Your task to perform on an android device: Go to calendar. Show me events next week Image 0: 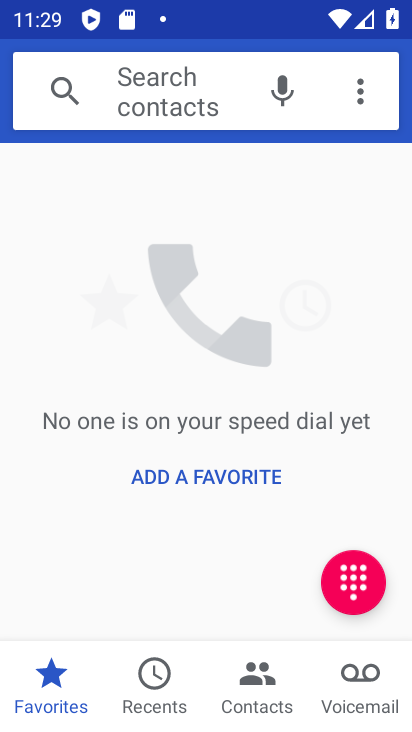
Step 0: press home button
Your task to perform on an android device: Go to calendar. Show me events next week Image 1: 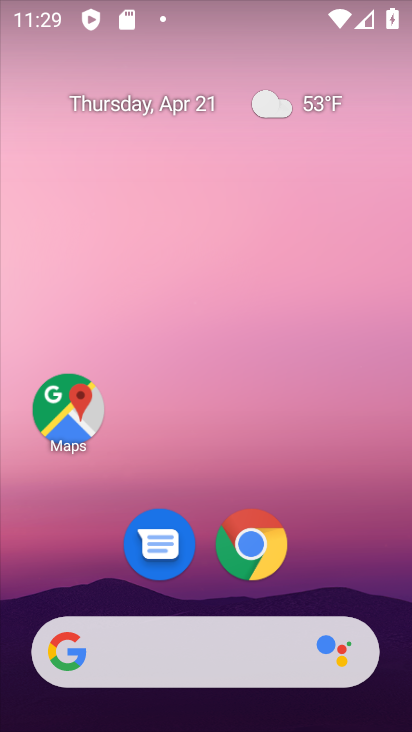
Step 1: drag from (311, 579) to (311, 132)
Your task to perform on an android device: Go to calendar. Show me events next week Image 2: 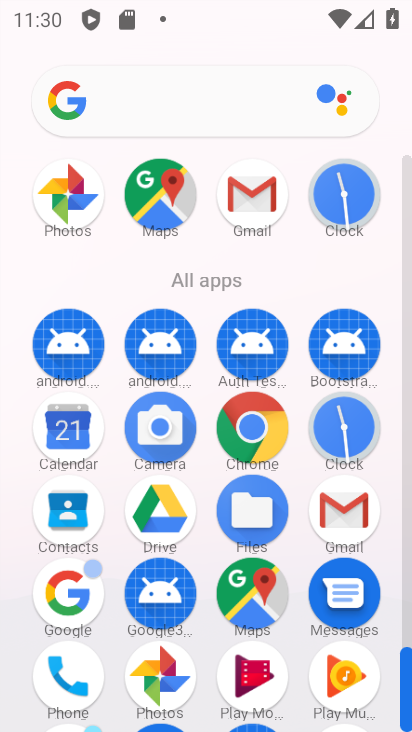
Step 2: click (79, 435)
Your task to perform on an android device: Go to calendar. Show me events next week Image 3: 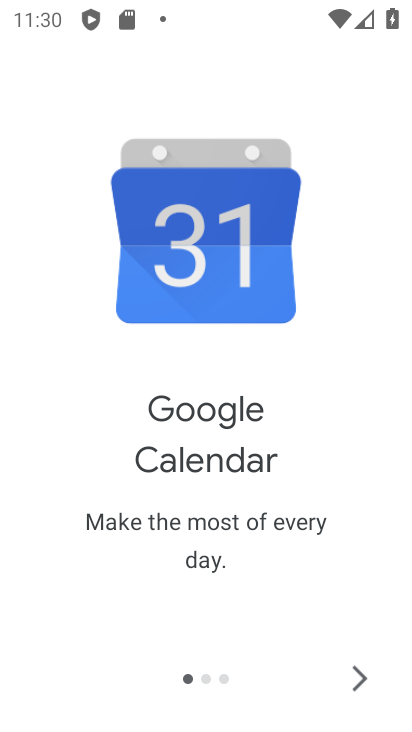
Step 3: click (361, 677)
Your task to perform on an android device: Go to calendar. Show me events next week Image 4: 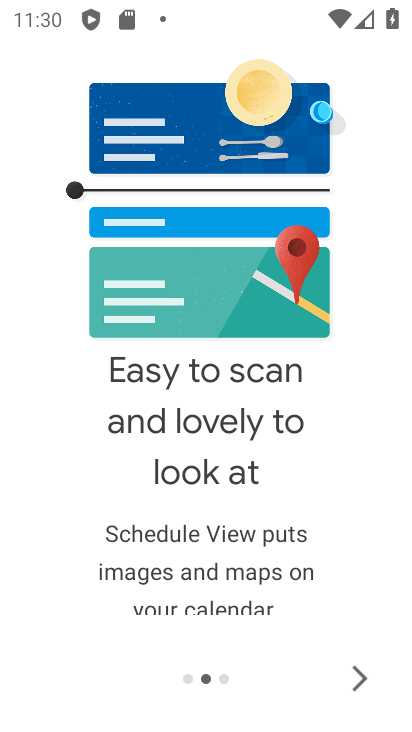
Step 4: click (361, 677)
Your task to perform on an android device: Go to calendar. Show me events next week Image 5: 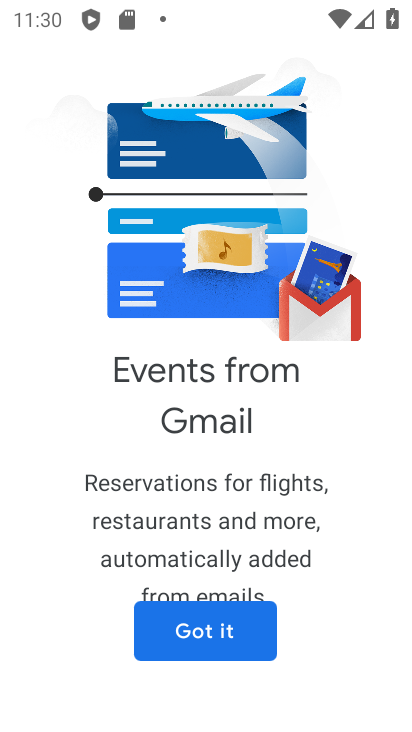
Step 5: click (244, 641)
Your task to perform on an android device: Go to calendar. Show me events next week Image 6: 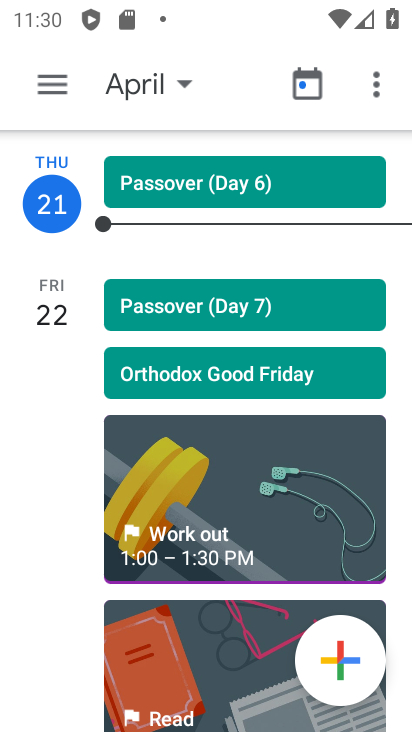
Step 6: click (52, 96)
Your task to perform on an android device: Go to calendar. Show me events next week Image 7: 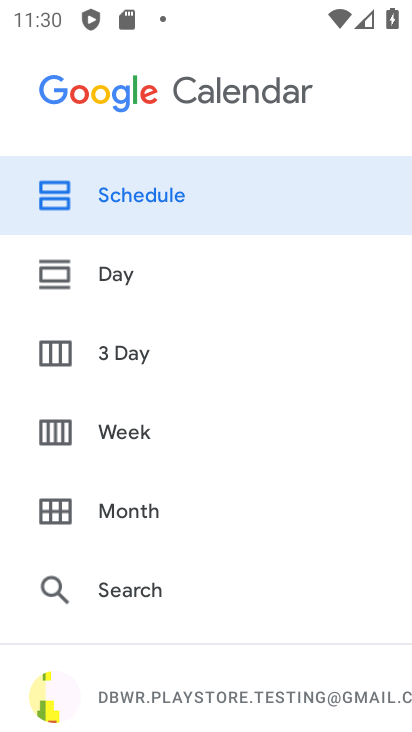
Step 7: click (134, 210)
Your task to perform on an android device: Go to calendar. Show me events next week Image 8: 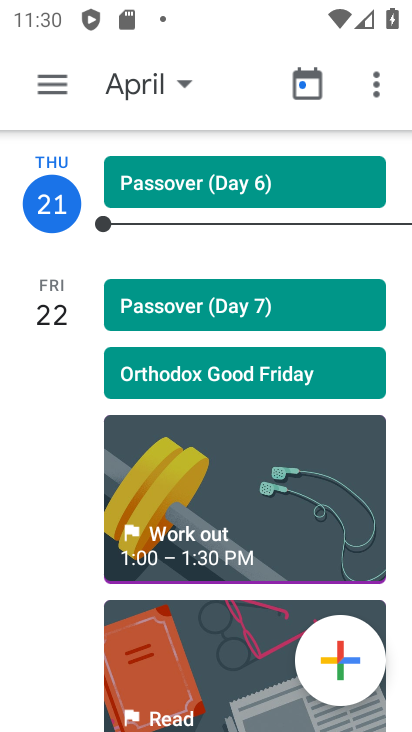
Step 8: click (184, 79)
Your task to perform on an android device: Go to calendar. Show me events next week Image 9: 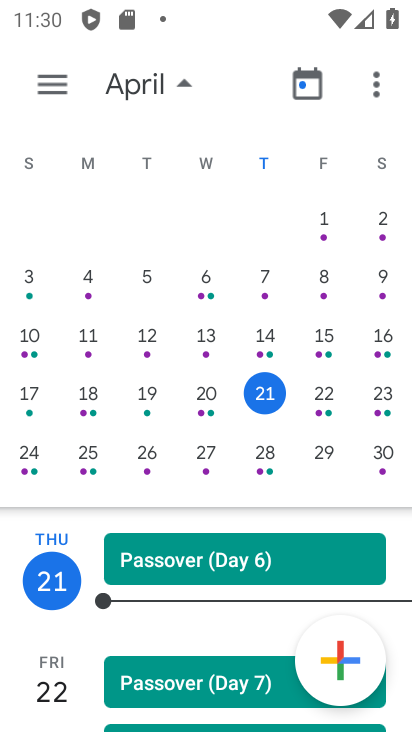
Step 9: click (205, 456)
Your task to perform on an android device: Go to calendar. Show me events next week Image 10: 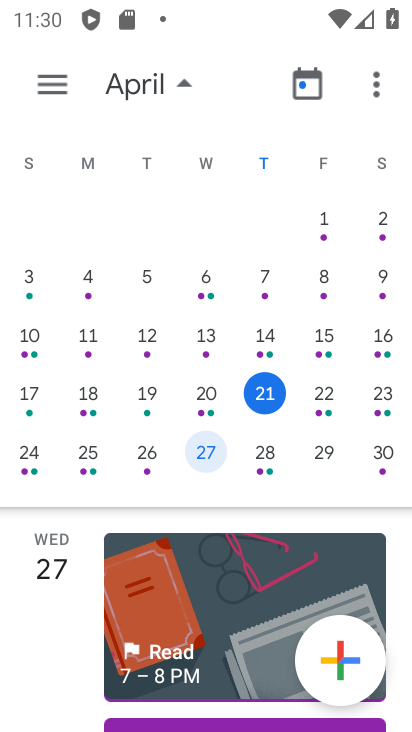
Step 10: task complete